Your task to perform on an android device: Go to Google Image 0: 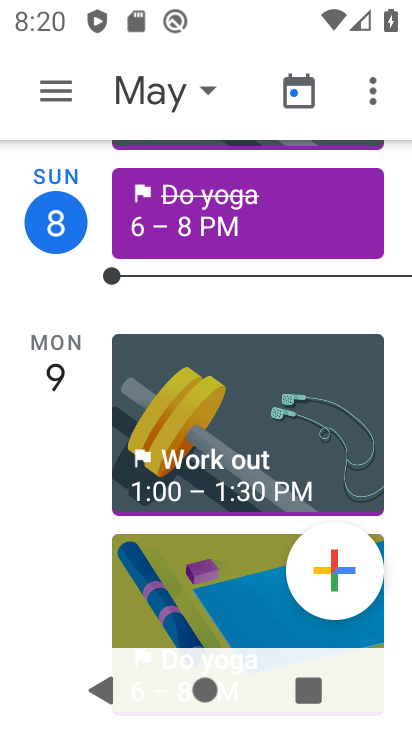
Step 0: press home button
Your task to perform on an android device: Go to Google Image 1: 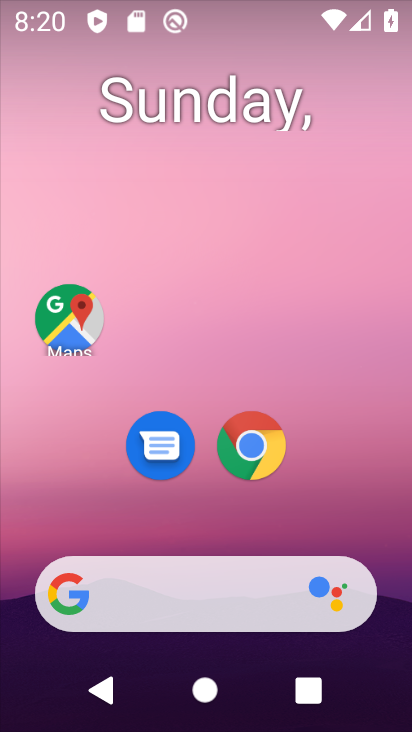
Step 1: drag from (340, 538) to (290, 204)
Your task to perform on an android device: Go to Google Image 2: 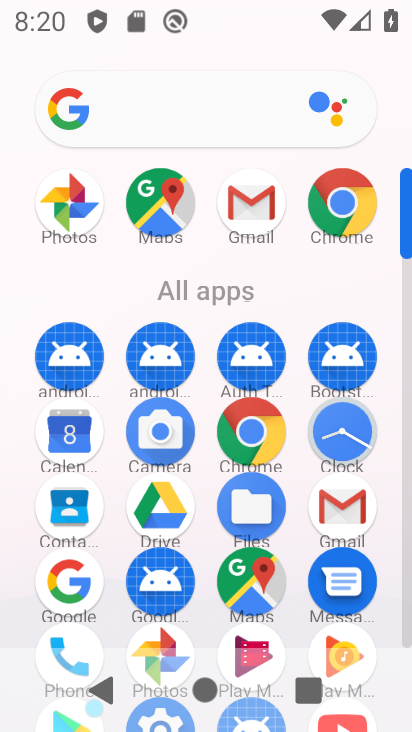
Step 2: click (407, 623)
Your task to perform on an android device: Go to Google Image 3: 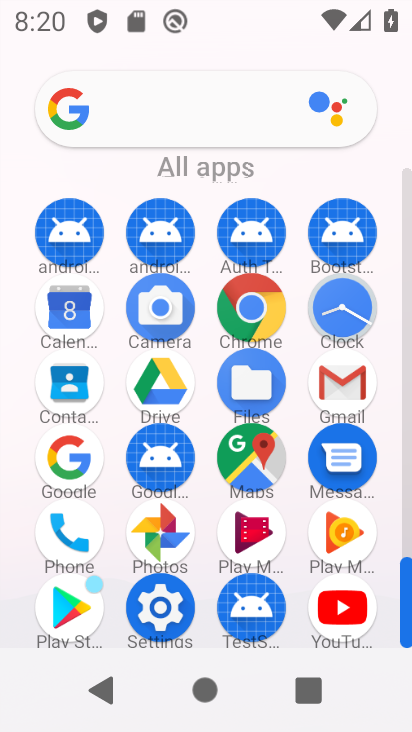
Step 3: click (82, 450)
Your task to perform on an android device: Go to Google Image 4: 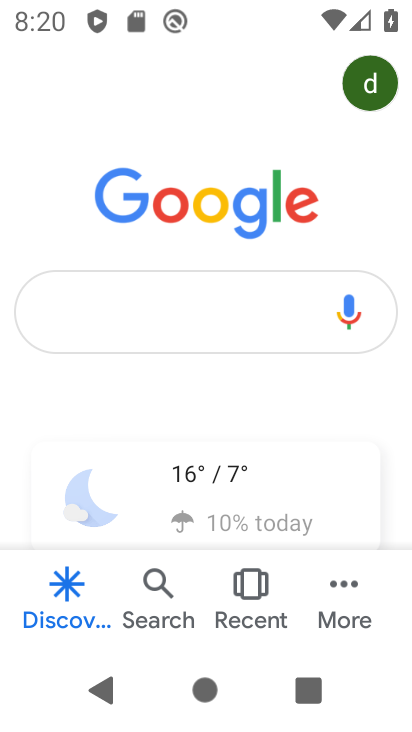
Step 4: task complete